Your task to perform on an android device: toggle priority inbox in the gmail app Image 0: 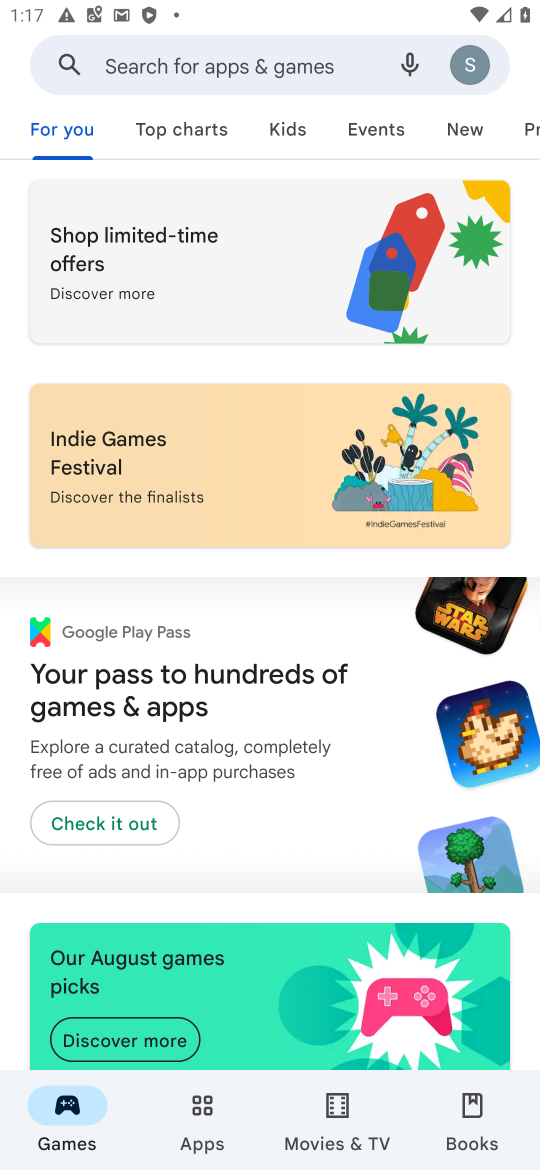
Step 0: task complete